Your task to perform on an android device: Open the contacts app Image 0: 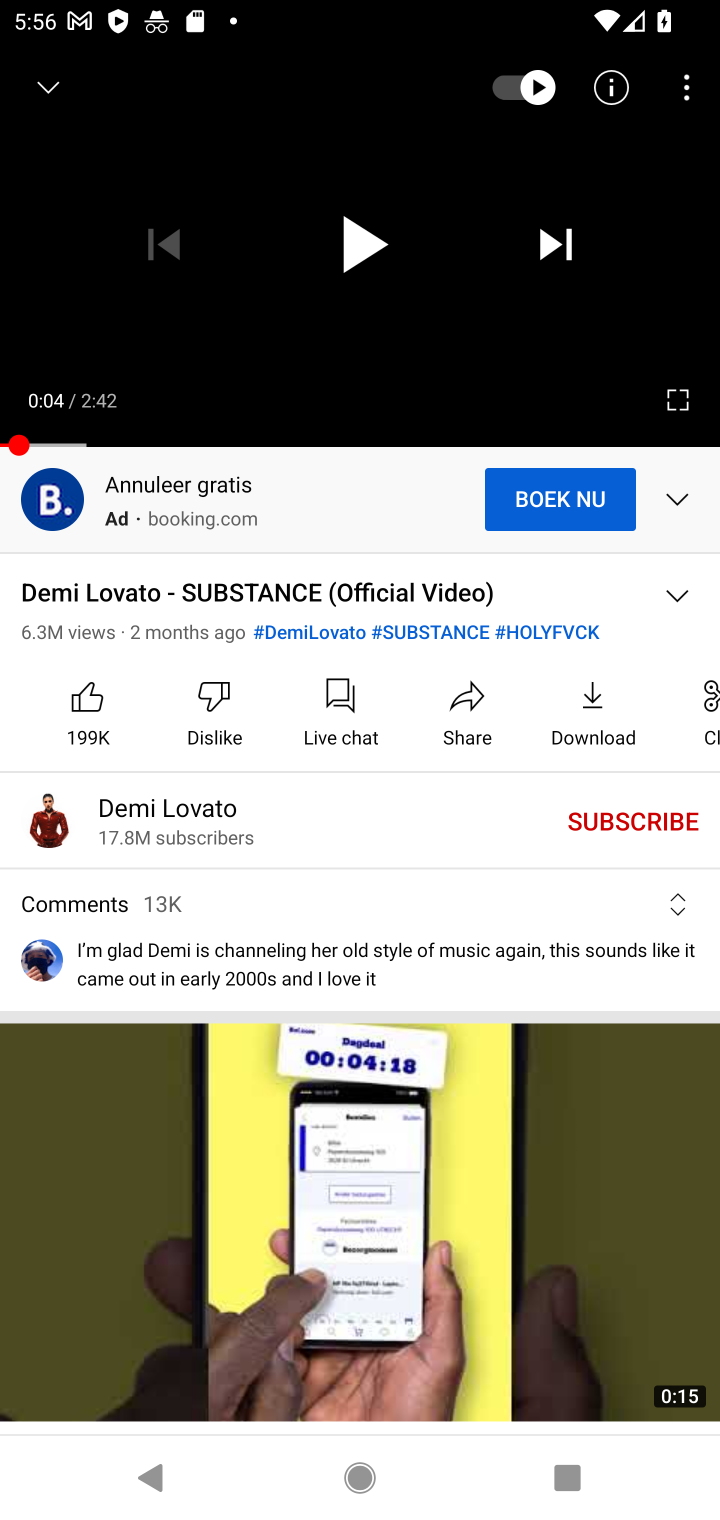
Step 0: press home button
Your task to perform on an android device: Open the contacts app Image 1: 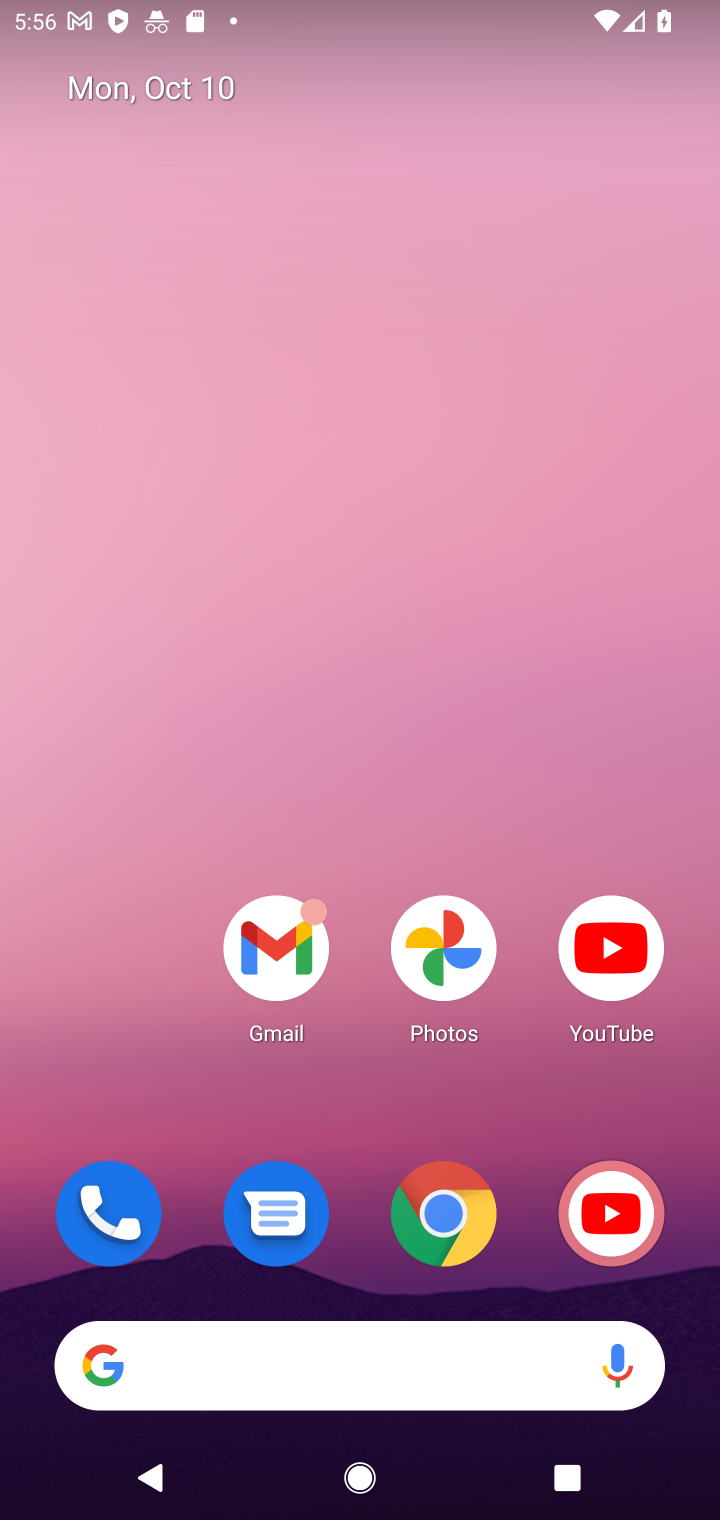
Step 1: drag from (347, 1291) to (498, 219)
Your task to perform on an android device: Open the contacts app Image 2: 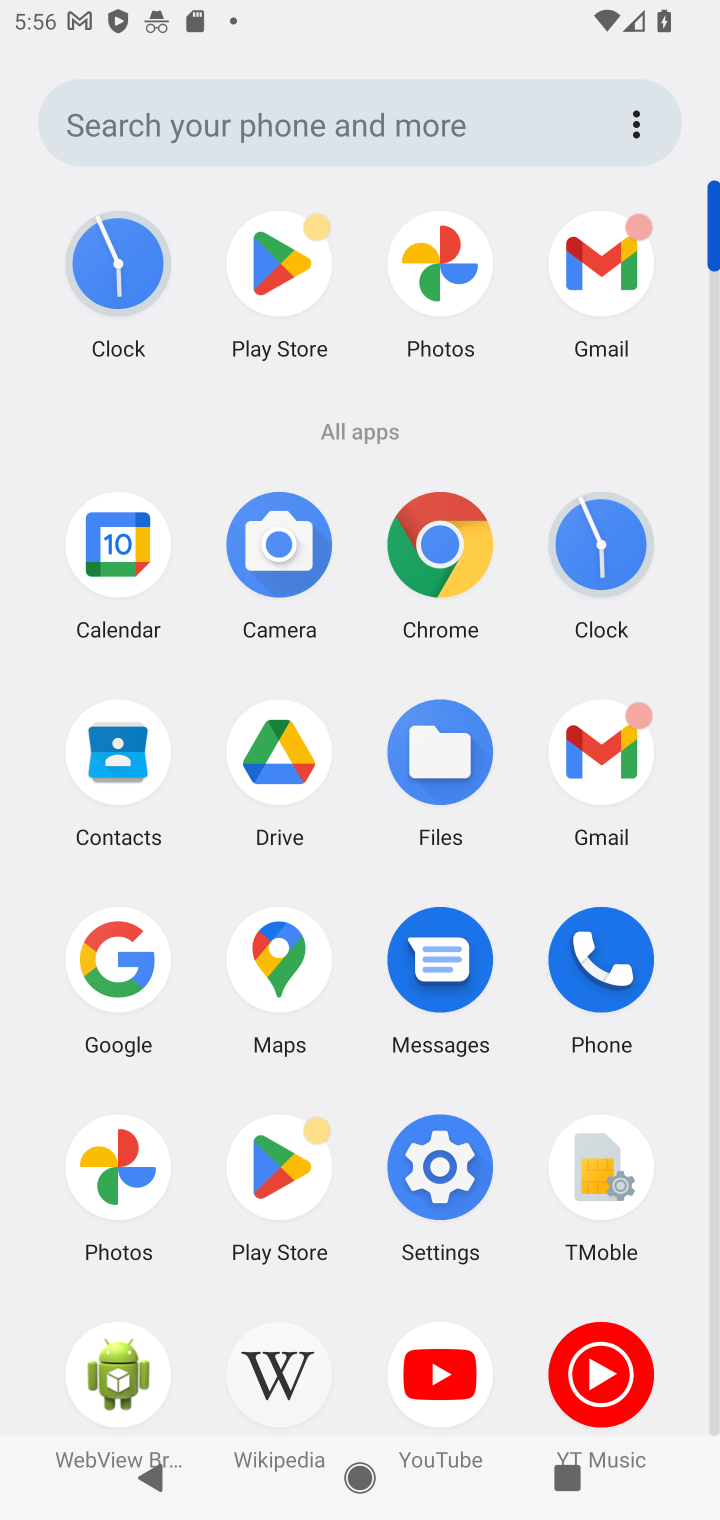
Step 2: click (46, 767)
Your task to perform on an android device: Open the contacts app Image 3: 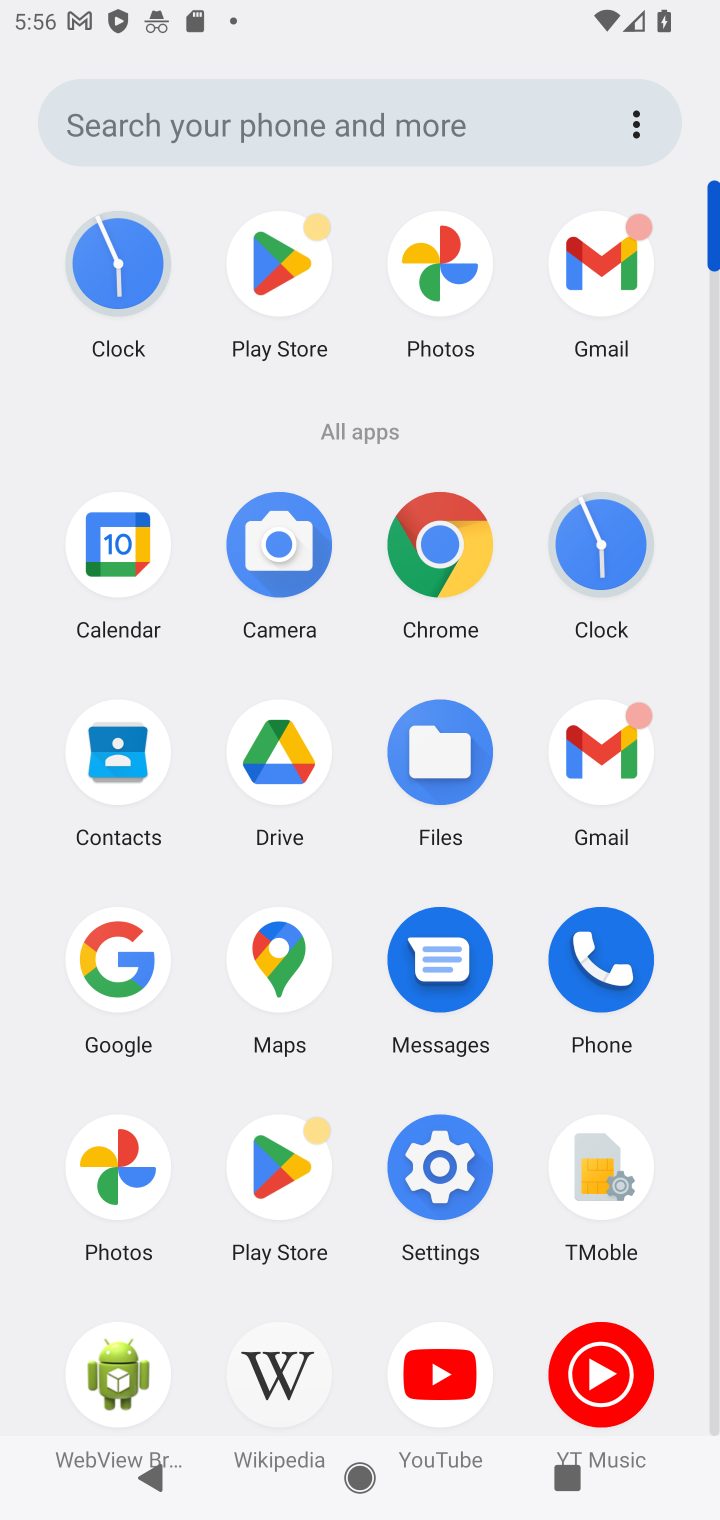
Step 3: click (134, 767)
Your task to perform on an android device: Open the contacts app Image 4: 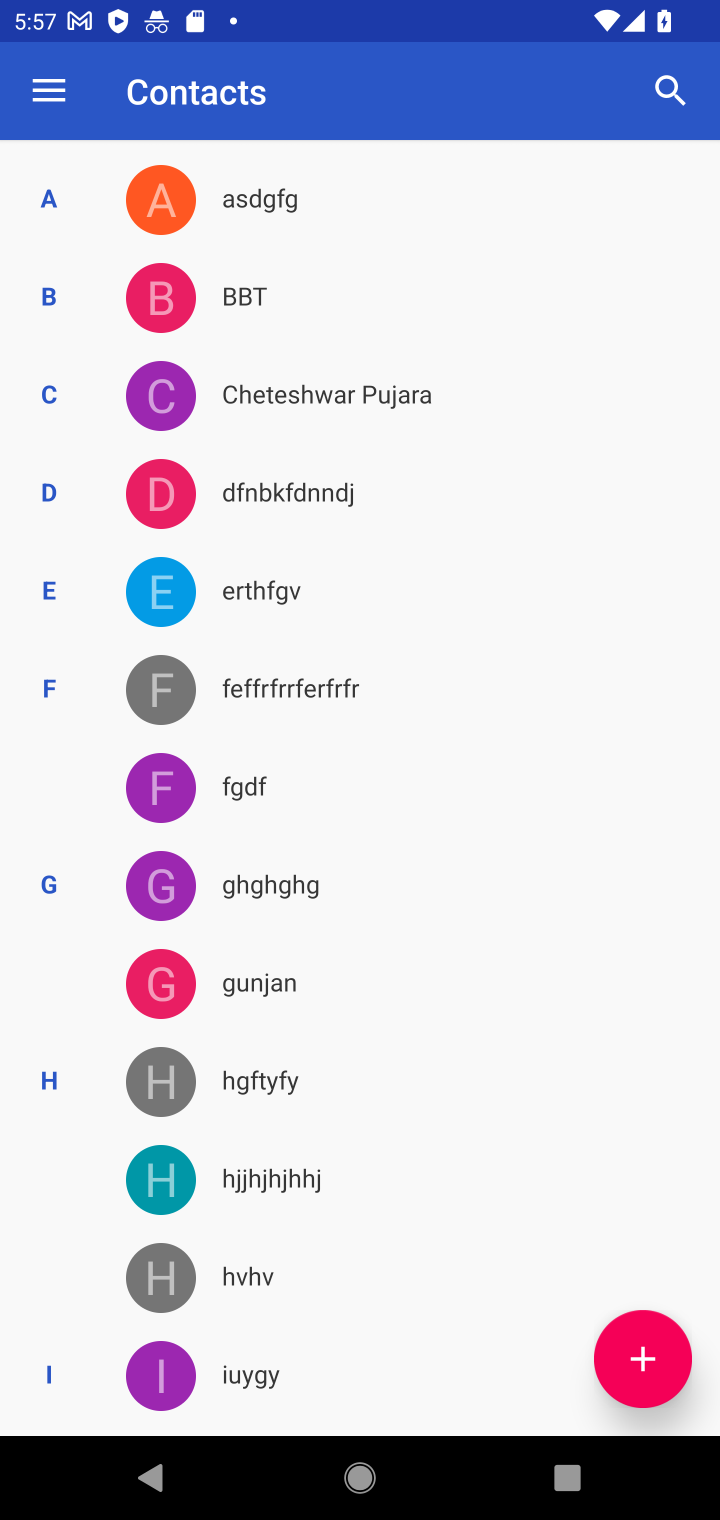
Step 4: task complete